Your task to perform on an android device: Open Youtube and go to "Your channel" Image 0: 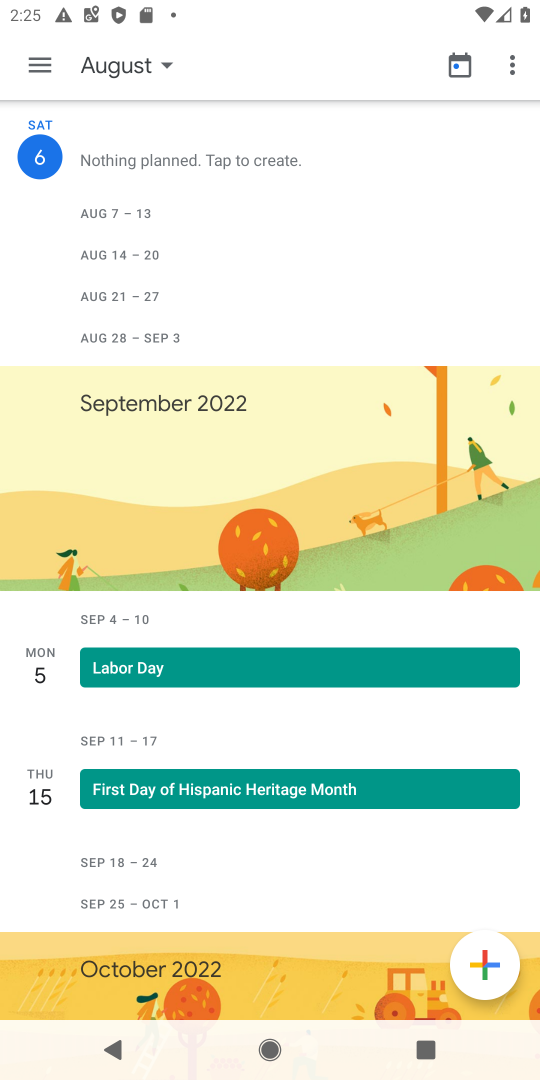
Step 0: press back button
Your task to perform on an android device: Open Youtube and go to "Your channel" Image 1: 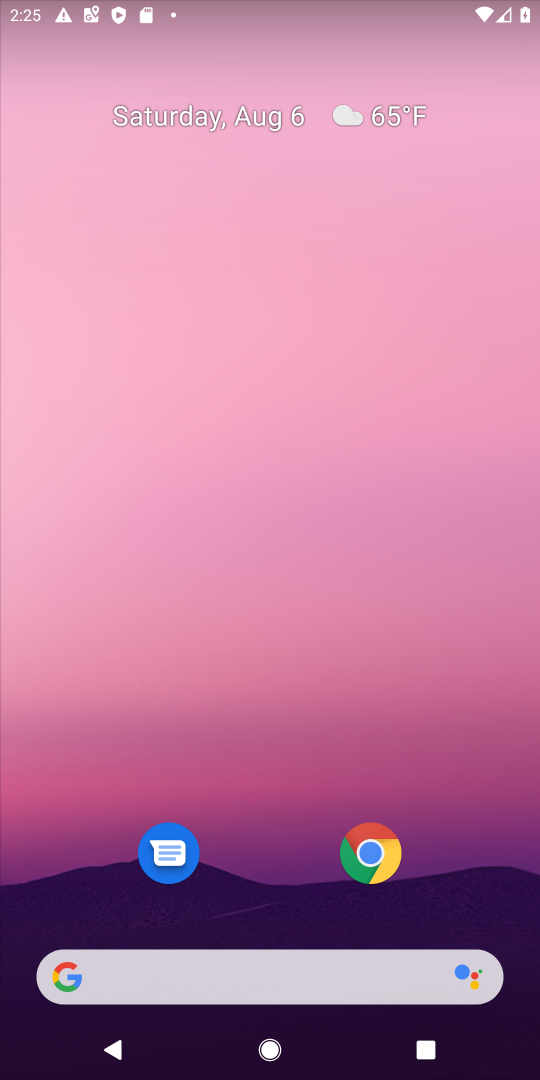
Step 1: drag from (234, 925) to (235, 39)
Your task to perform on an android device: Open Youtube and go to "Your channel" Image 2: 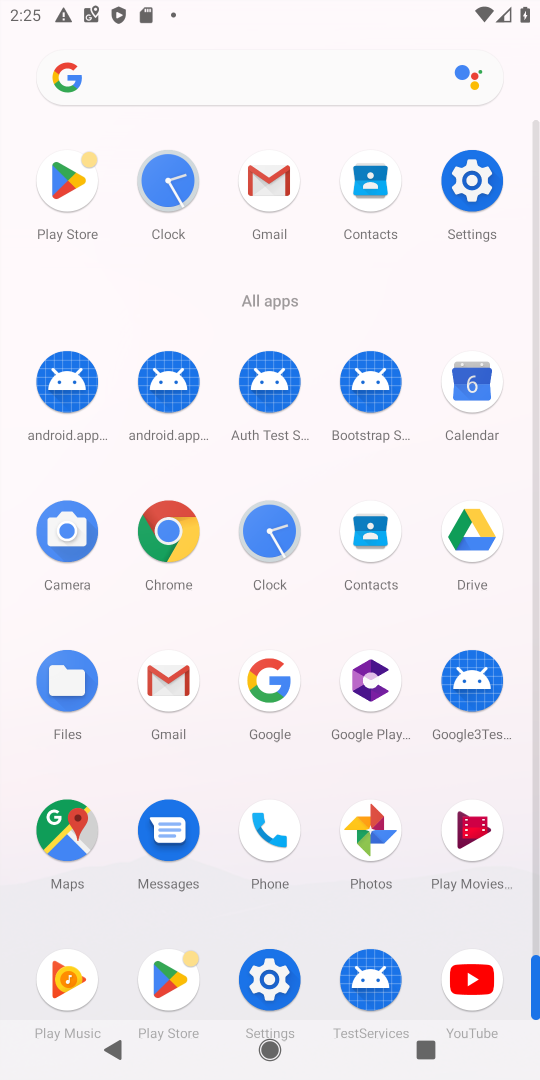
Step 2: click (455, 1008)
Your task to perform on an android device: Open Youtube and go to "Your channel" Image 3: 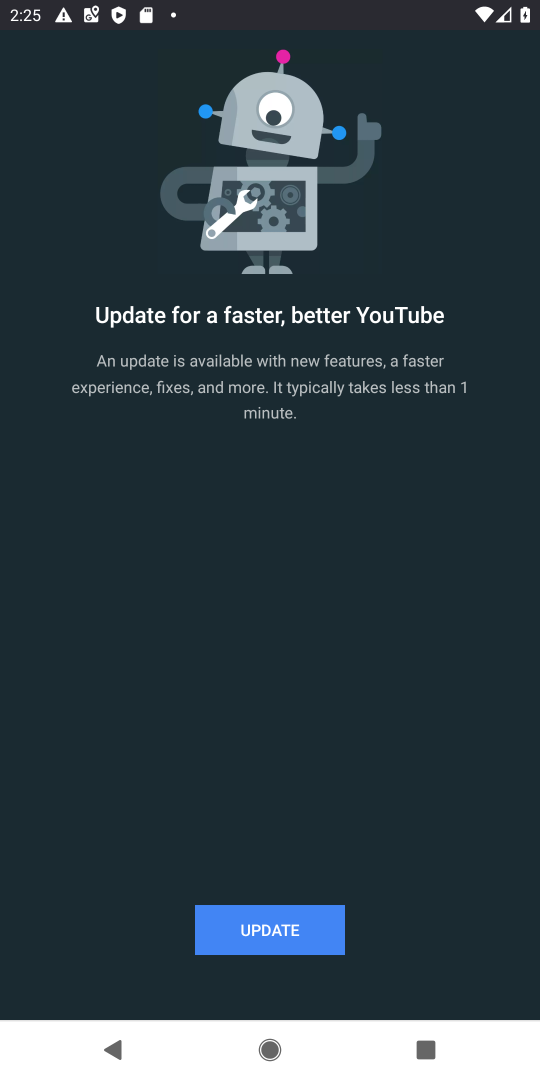
Step 3: click (299, 947)
Your task to perform on an android device: Open Youtube and go to "Your channel" Image 4: 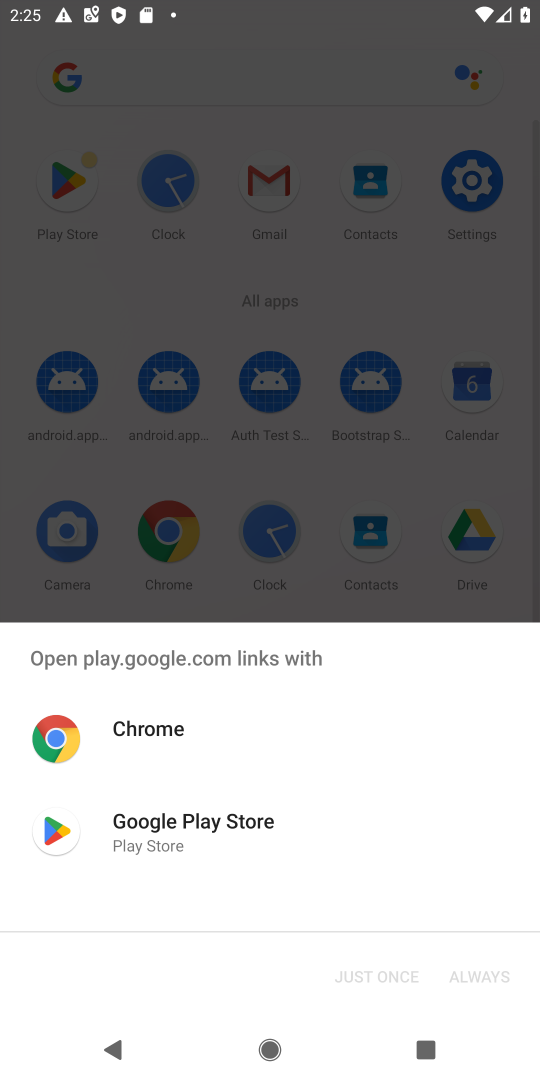
Step 4: click (137, 923)
Your task to perform on an android device: Open Youtube and go to "Your channel" Image 5: 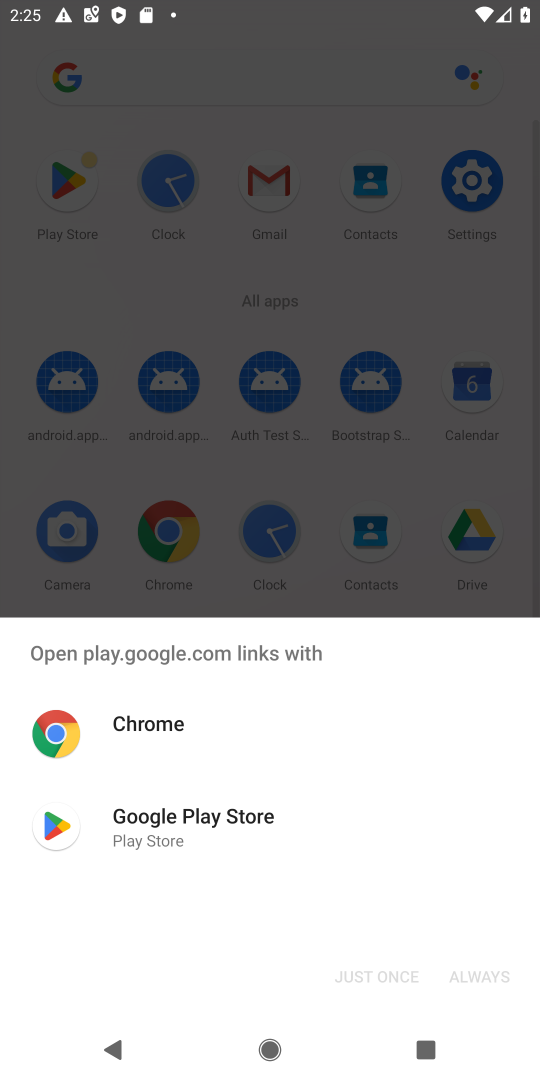
Step 5: click (121, 844)
Your task to perform on an android device: Open Youtube and go to "Your channel" Image 6: 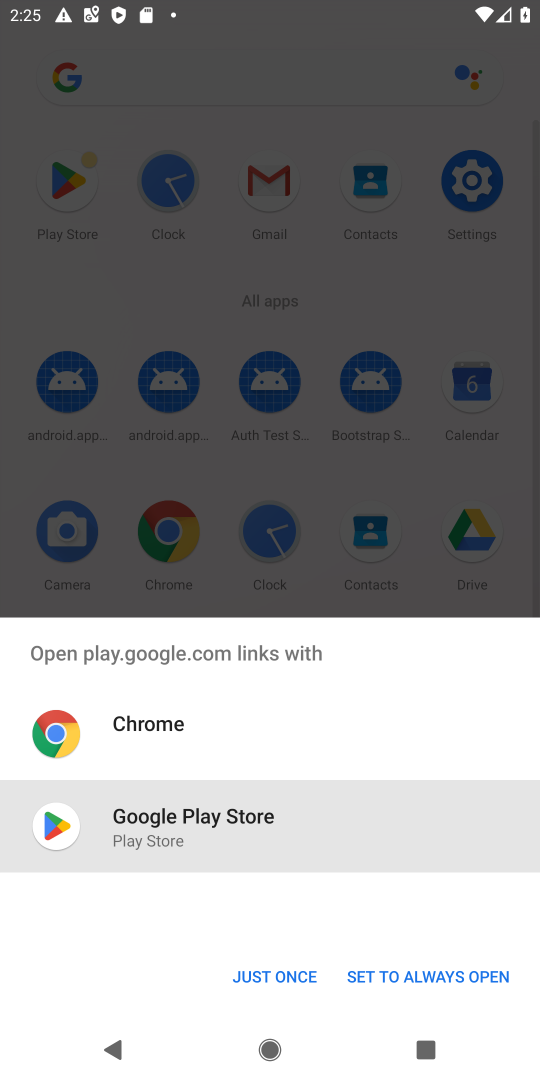
Step 6: click (230, 974)
Your task to perform on an android device: Open Youtube and go to "Your channel" Image 7: 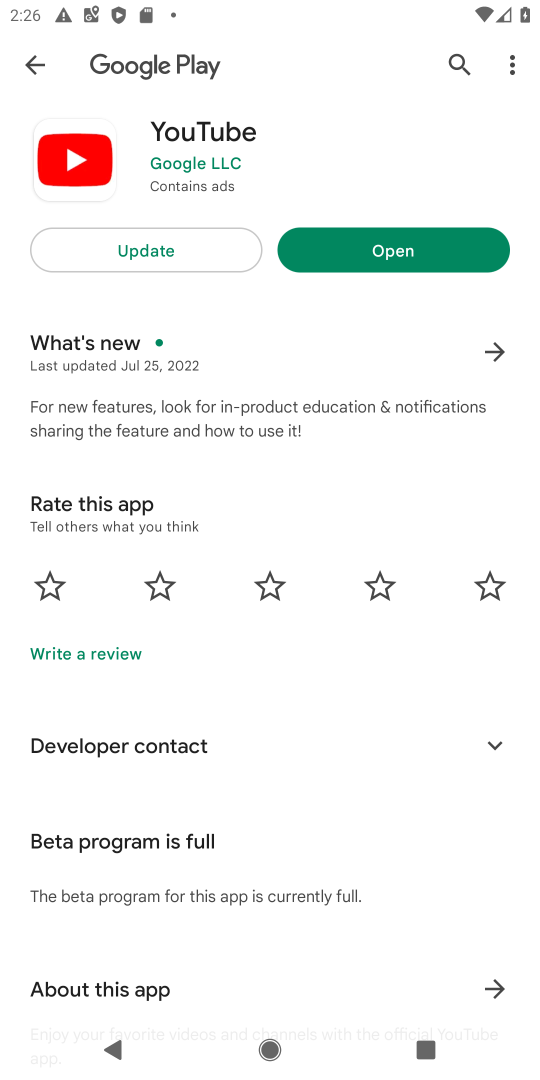
Step 7: click (397, 258)
Your task to perform on an android device: Open Youtube and go to "Your channel" Image 8: 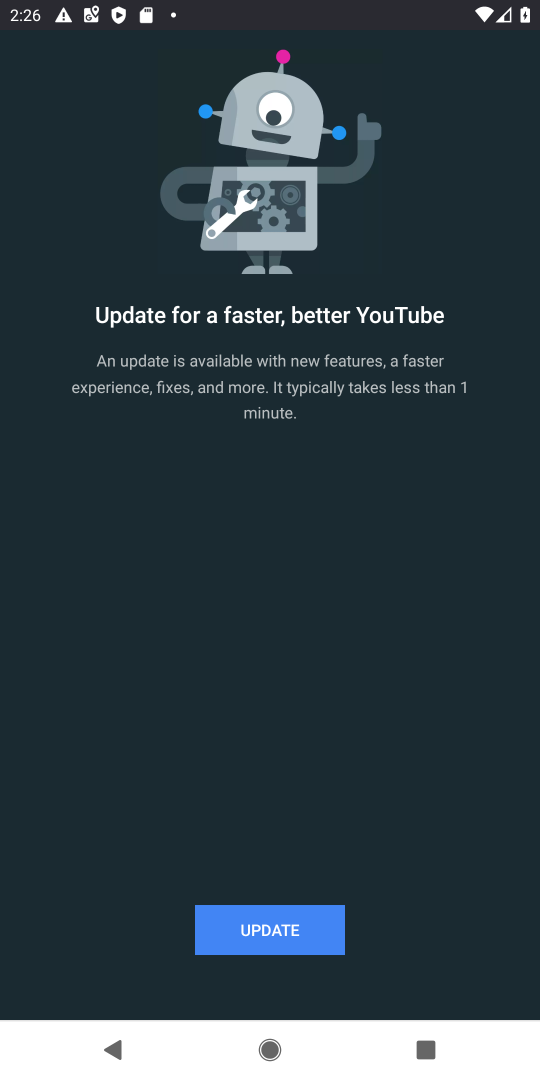
Step 8: task complete